Your task to perform on an android device: Open wifi settings Image 0: 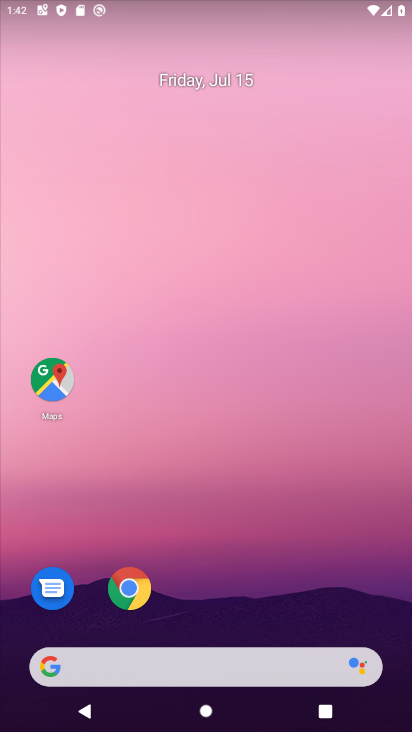
Step 0: drag from (176, 665) to (229, 159)
Your task to perform on an android device: Open wifi settings Image 1: 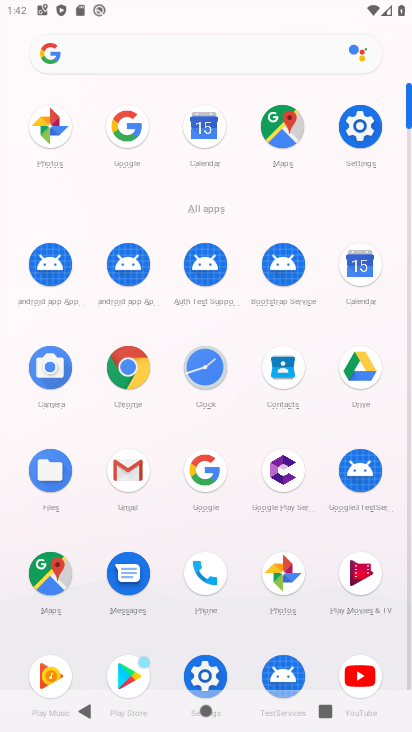
Step 1: click (361, 127)
Your task to perform on an android device: Open wifi settings Image 2: 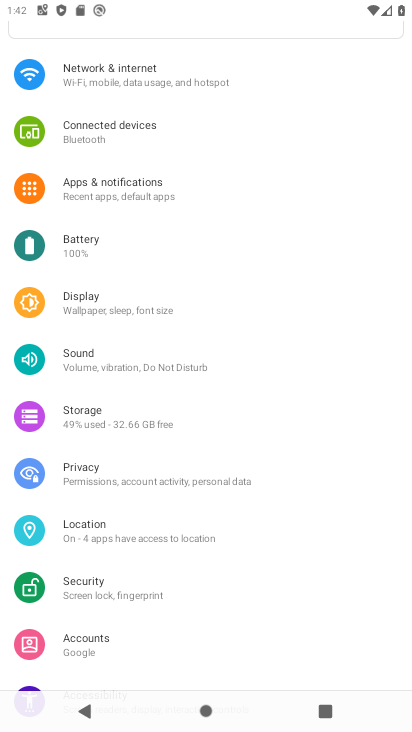
Step 2: click (169, 86)
Your task to perform on an android device: Open wifi settings Image 3: 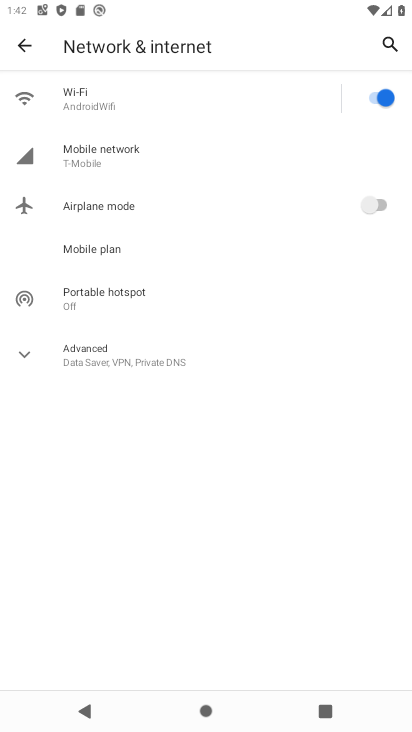
Step 3: click (93, 110)
Your task to perform on an android device: Open wifi settings Image 4: 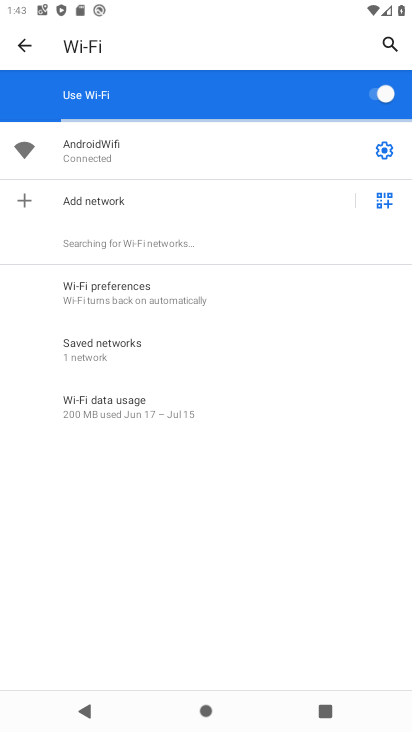
Step 4: click (384, 151)
Your task to perform on an android device: Open wifi settings Image 5: 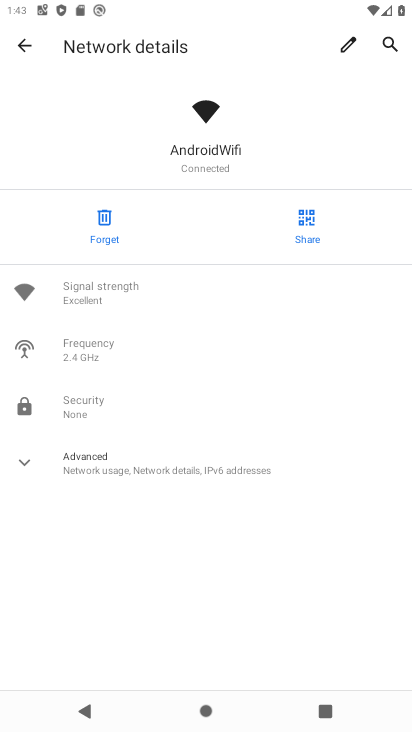
Step 5: task complete